Your task to perform on an android device: Open calendar and show me the first week of next month Image 0: 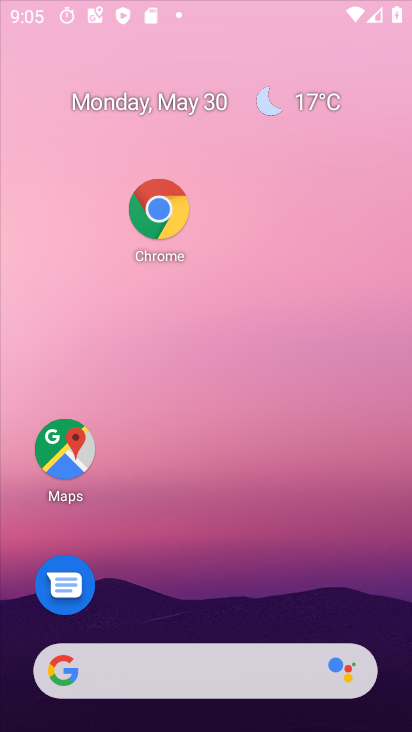
Step 0: click (231, 250)
Your task to perform on an android device: Open calendar and show me the first week of next month Image 1: 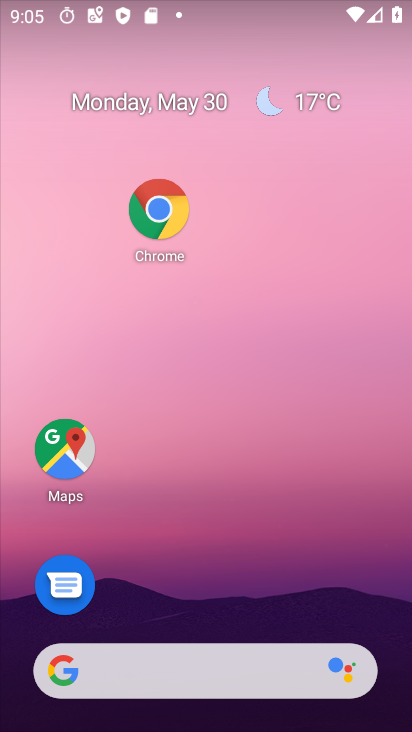
Step 1: drag from (213, 529) to (241, 46)
Your task to perform on an android device: Open calendar and show me the first week of next month Image 2: 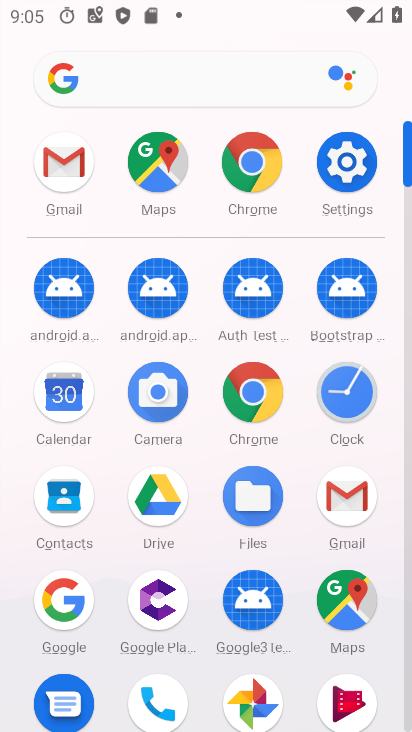
Step 2: click (54, 380)
Your task to perform on an android device: Open calendar and show me the first week of next month Image 3: 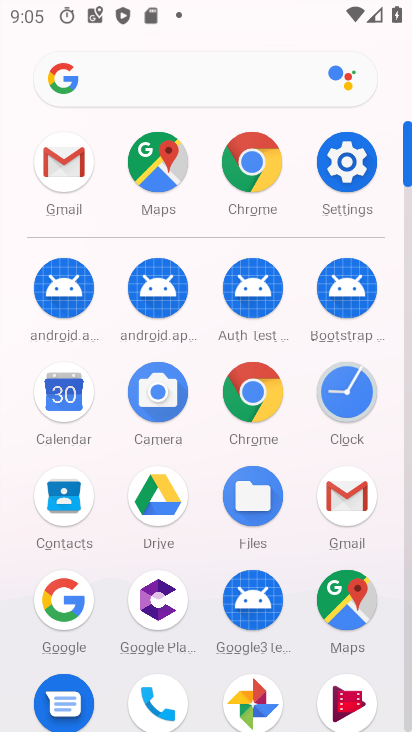
Step 3: click (54, 380)
Your task to perform on an android device: Open calendar and show me the first week of next month Image 4: 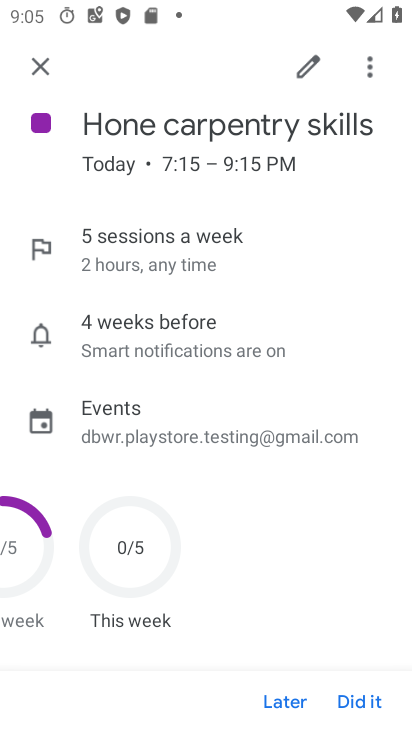
Step 4: click (40, 57)
Your task to perform on an android device: Open calendar and show me the first week of next month Image 5: 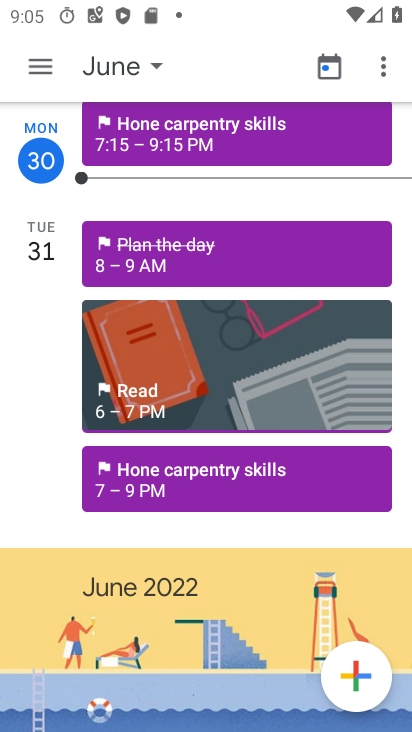
Step 5: click (124, 69)
Your task to perform on an android device: Open calendar and show me the first week of next month Image 6: 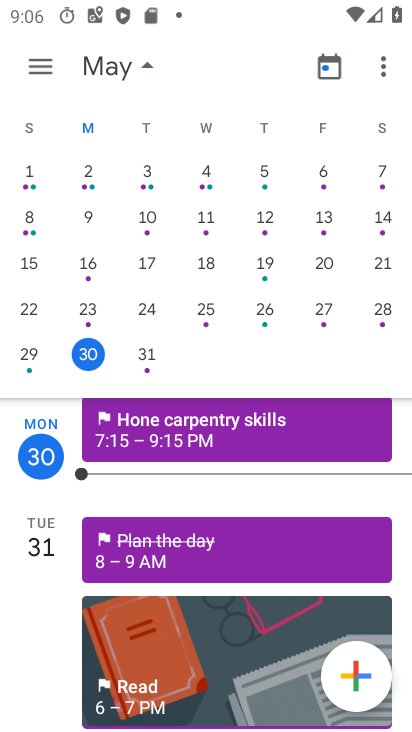
Step 6: drag from (173, 290) to (11, 290)
Your task to perform on an android device: Open calendar and show me the first week of next month Image 7: 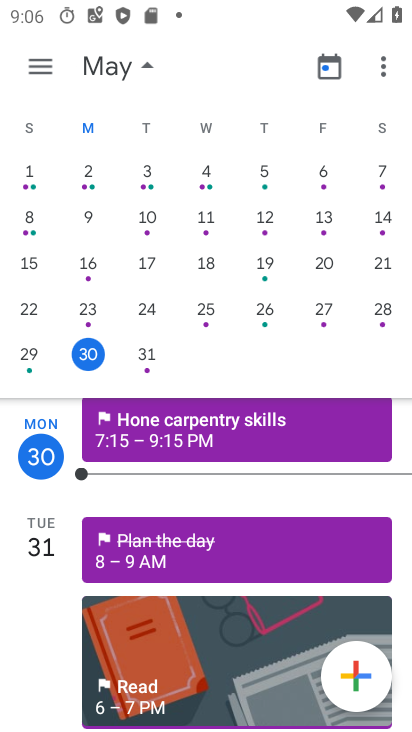
Step 7: drag from (384, 181) to (25, 287)
Your task to perform on an android device: Open calendar and show me the first week of next month Image 8: 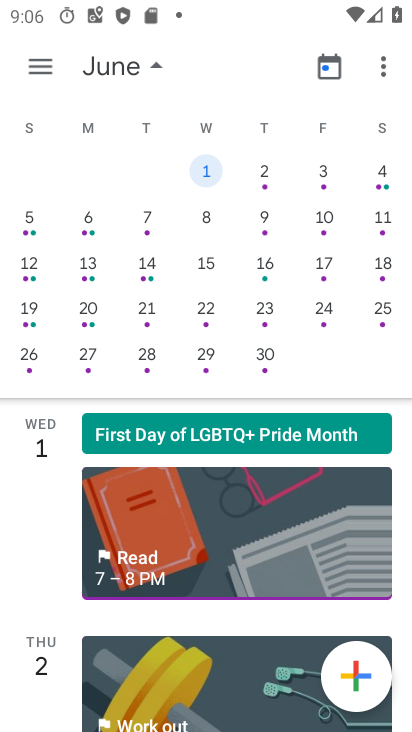
Step 8: click (261, 177)
Your task to perform on an android device: Open calendar and show me the first week of next month Image 9: 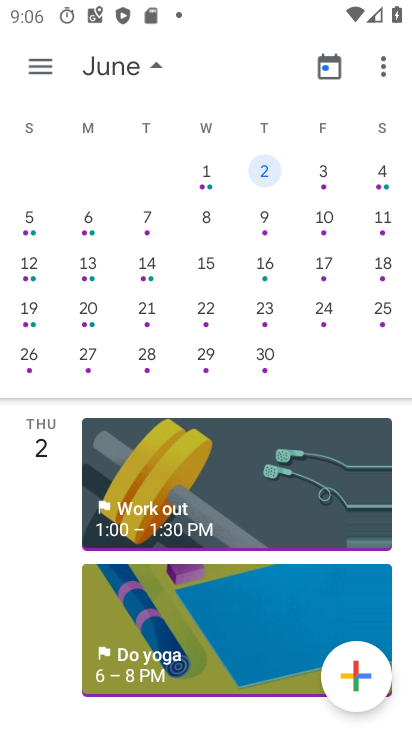
Step 9: drag from (250, 398) to (258, 253)
Your task to perform on an android device: Open calendar and show me the first week of next month Image 10: 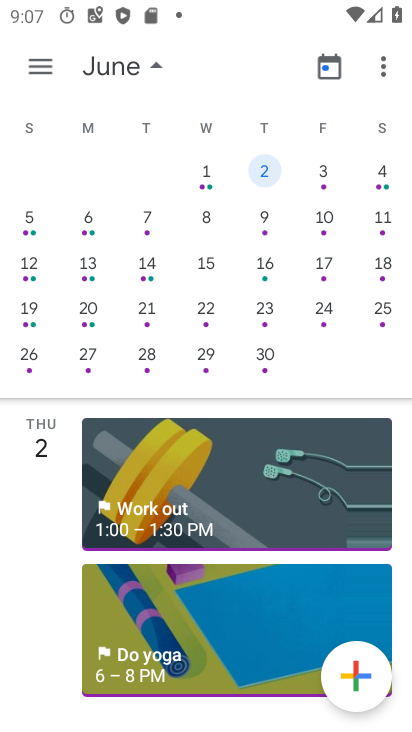
Step 10: click (267, 182)
Your task to perform on an android device: Open calendar and show me the first week of next month Image 11: 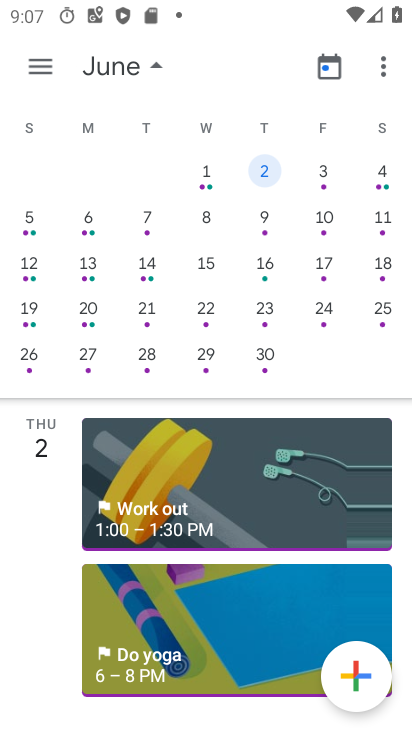
Step 11: task complete